Your task to perform on an android device: allow notifications from all sites in the chrome app Image 0: 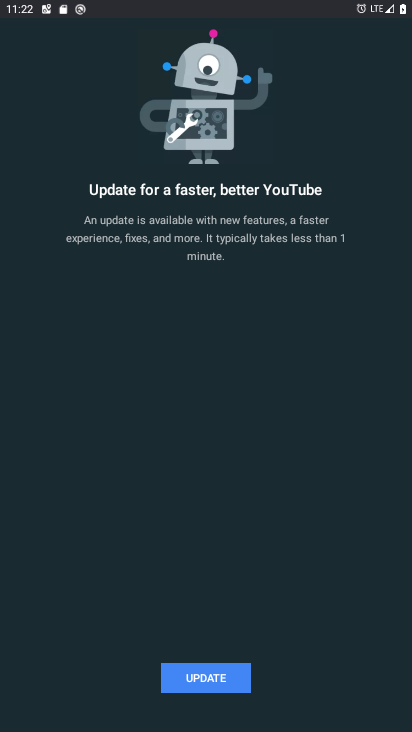
Step 0: press home button
Your task to perform on an android device: allow notifications from all sites in the chrome app Image 1: 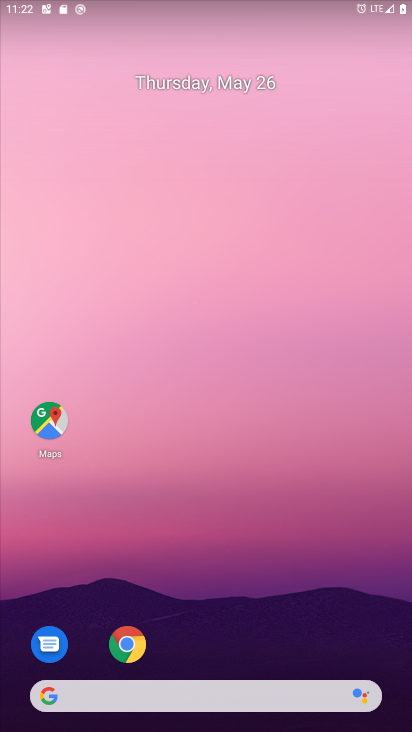
Step 1: drag from (337, 582) to (337, 270)
Your task to perform on an android device: allow notifications from all sites in the chrome app Image 2: 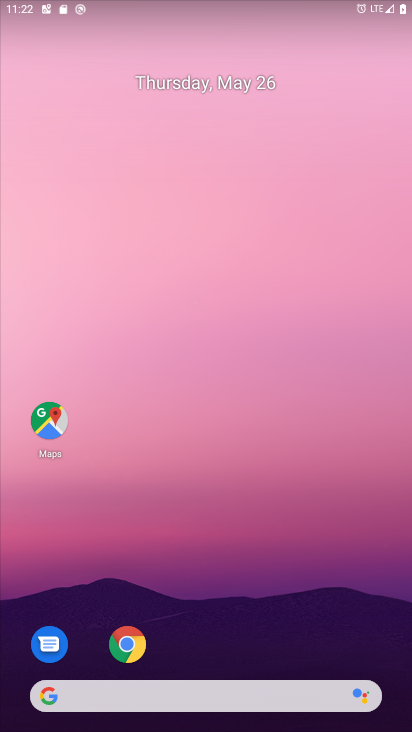
Step 2: drag from (330, 607) to (410, 88)
Your task to perform on an android device: allow notifications from all sites in the chrome app Image 3: 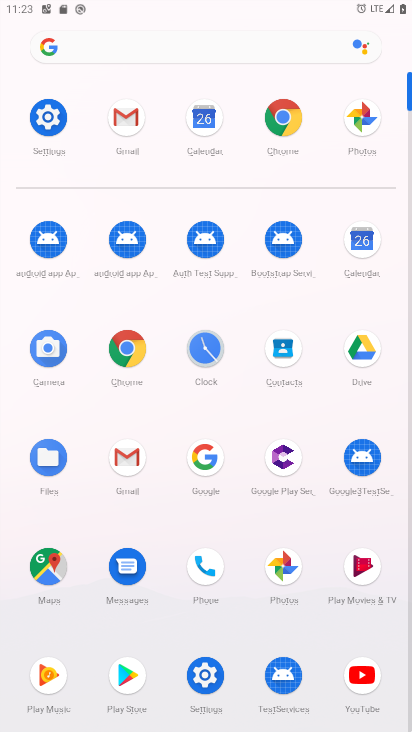
Step 3: click (128, 354)
Your task to perform on an android device: allow notifications from all sites in the chrome app Image 4: 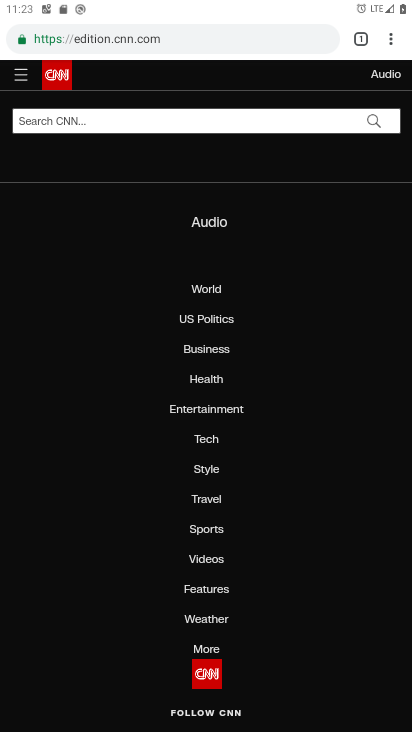
Step 4: click (388, 38)
Your task to perform on an android device: allow notifications from all sites in the chrome app Image 5: 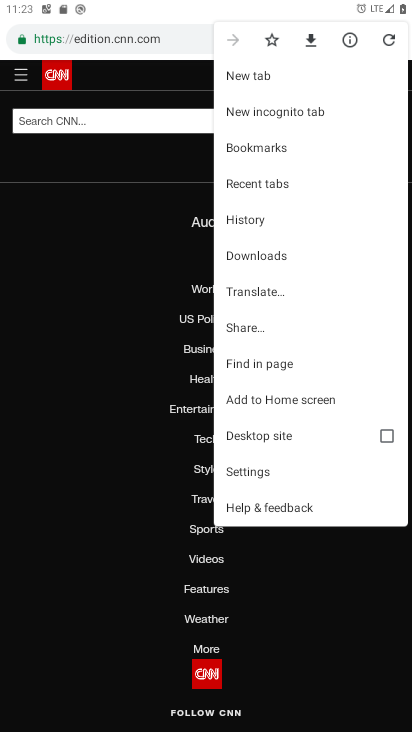
Step 5: click (269, 475)
Your task to perform on an android device: allow notifications from all sites in the chrome app Image 6: 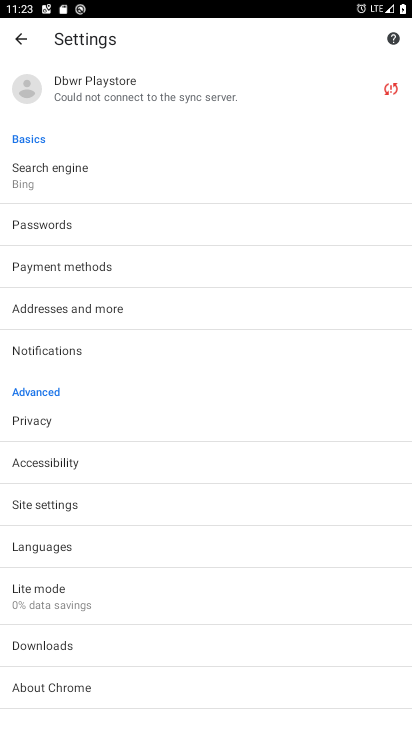
Step 6: drag from (277, 611) to (294, 447)
Your task to perform on an android device: allow notifications from all sites in the chrome app Image 7: 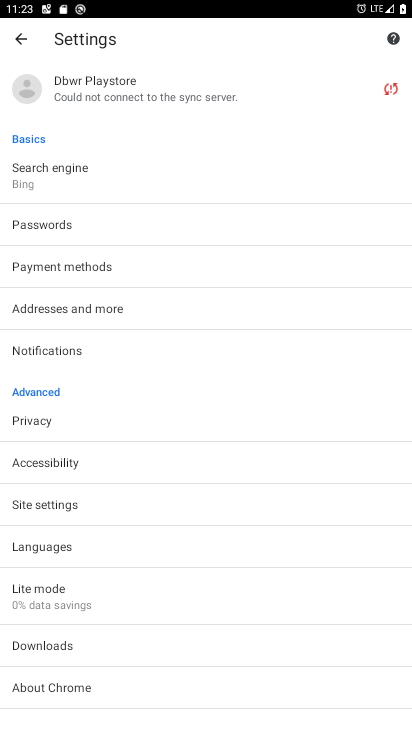
Step 7: click (237, 504)
Your task to perform on an android device: allow notifications from all sites in the chrome app Image 8: 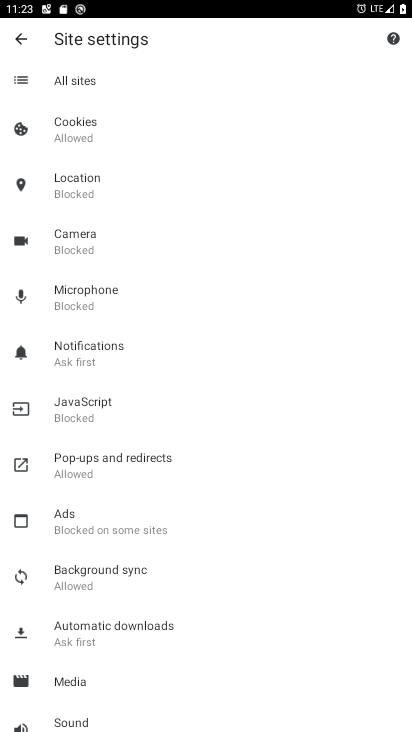
Step 8: click (118, 348)
Your task to perform on an android device: allow notifications from all sites in the chrome app Image 9: 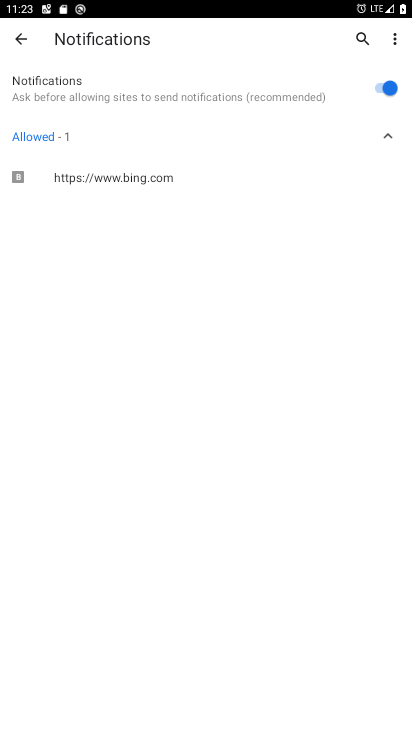
Step 9: task complete